Your task to perform on an android device: Go to settings Image 0: 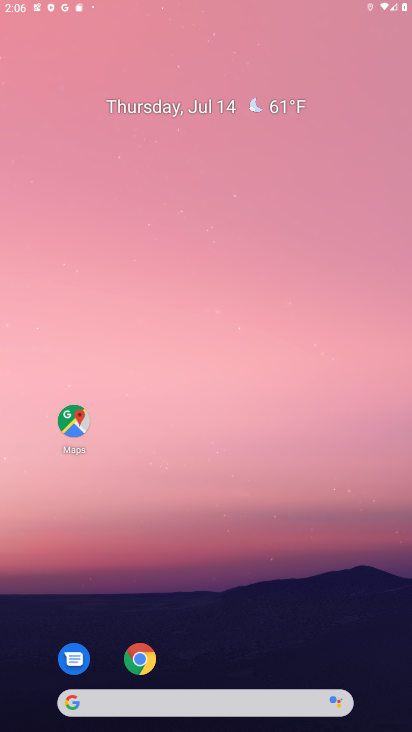
Step 0: click (212, 115)
Your task to perform on an android device: Go to settings Image 1: 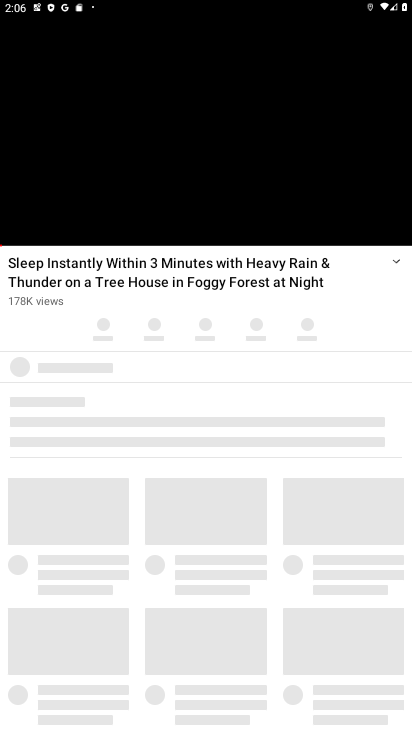
Step 1: press back button
Your task to perform on an android device: Go to settings Image 2: 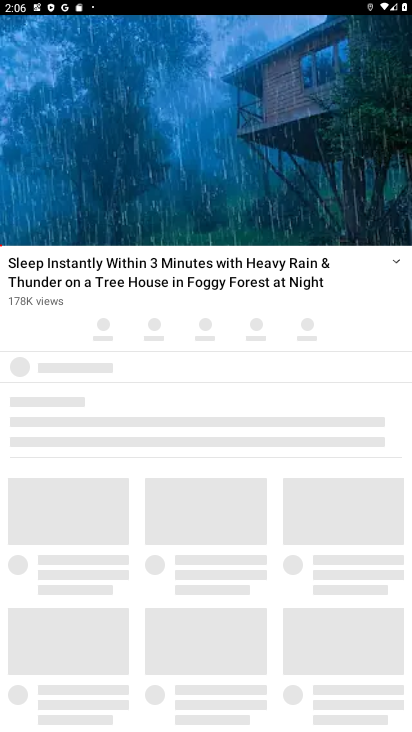
Step 2: press back button
Your task to perform on an android device: Go to settings Image 3: 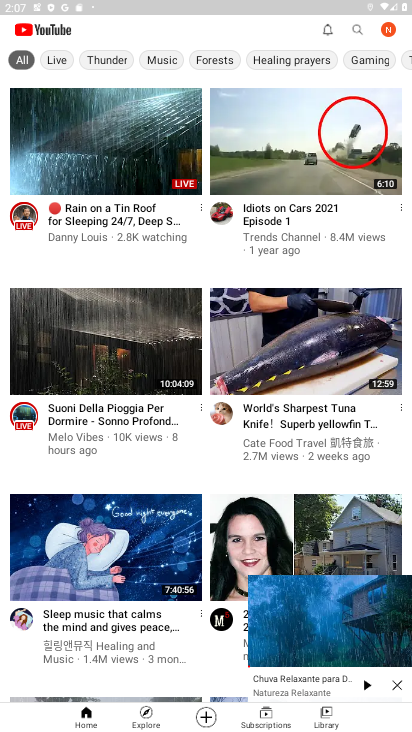
Step 3: press back button
Your task to perform on an android device: Go to settings Image 4: 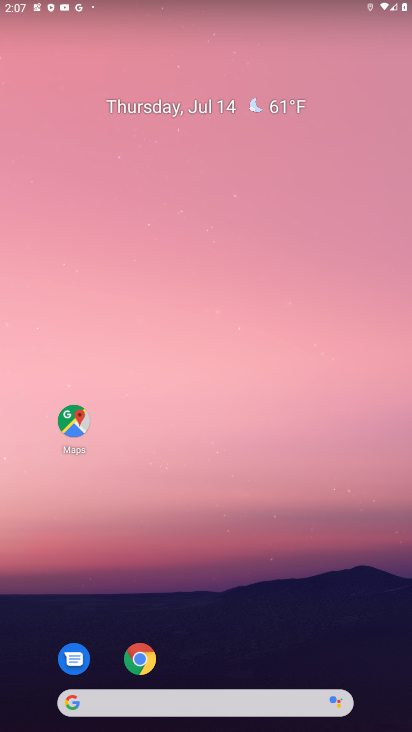
Step 4: drag from (256, 669) to (240, 78)
Your task to perform on an android device: Go to settings Image 5: 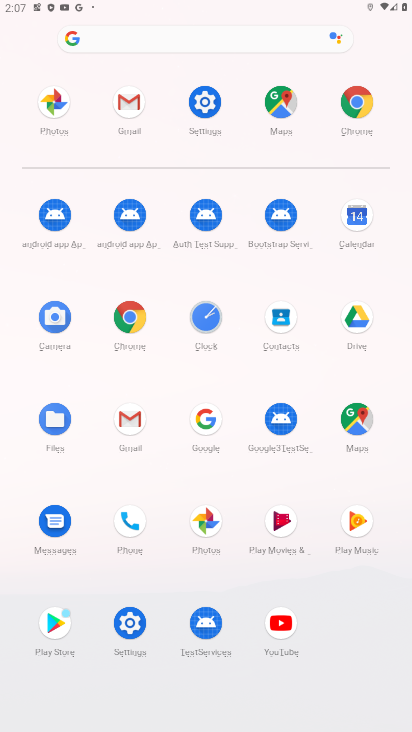
Step 5: click (195, 103)
Your task to perform on an android device: Go to settings Image 6: 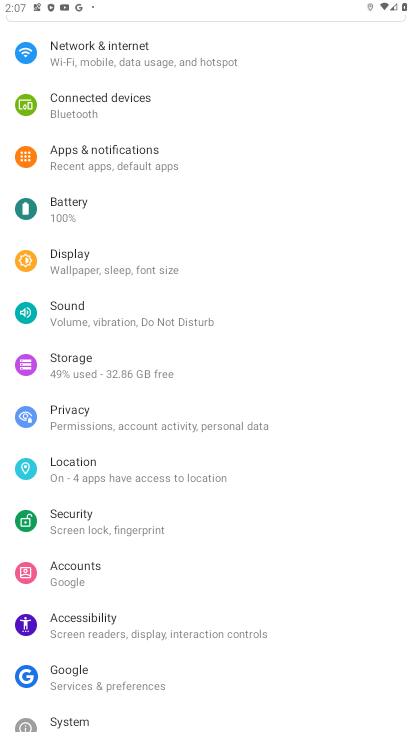
Step 6: task complete